Your task to perform on an android device: Go to location settings Image 0: 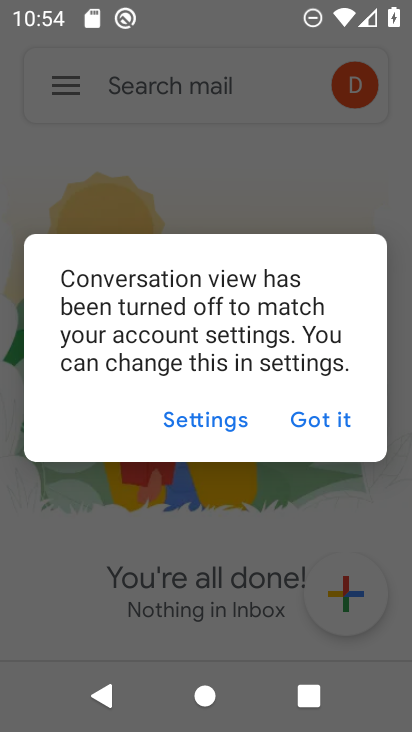
Step 0: press home button
Your task to perform on an android device: Go to location settings Image 1: 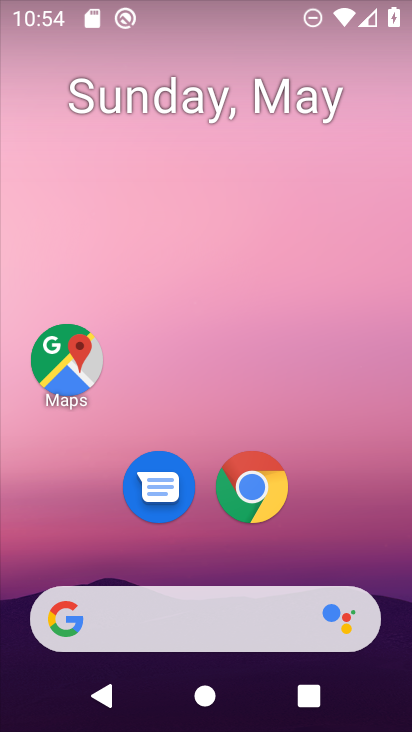
Step 1: drag from (377, 472) to (333, 168)
Your task to perform on an android device: Go to location settings Image 2: 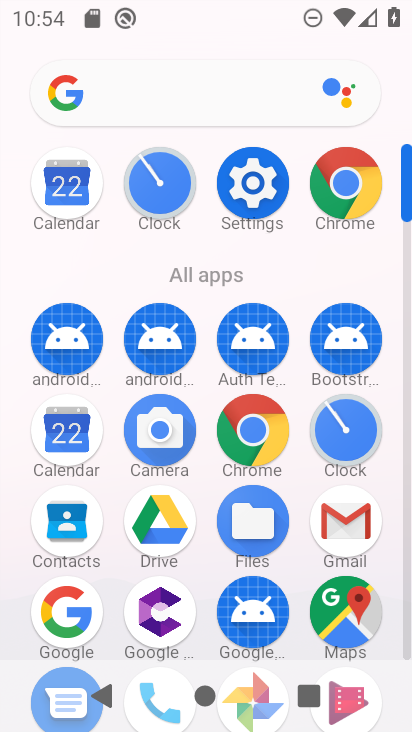
Step 2: click (243, 192)
Your task to perform on an android device: Go to location settings Image 3: 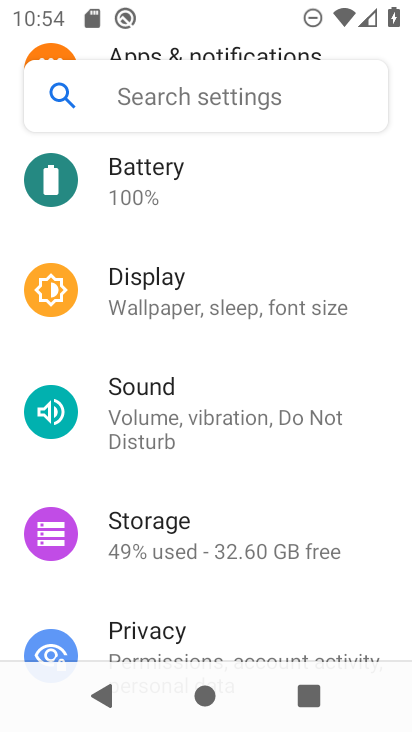
Step 3: drag from (236, 591) to (223, 209)
Your task to perform on an android device: Go to location settings Image 4: 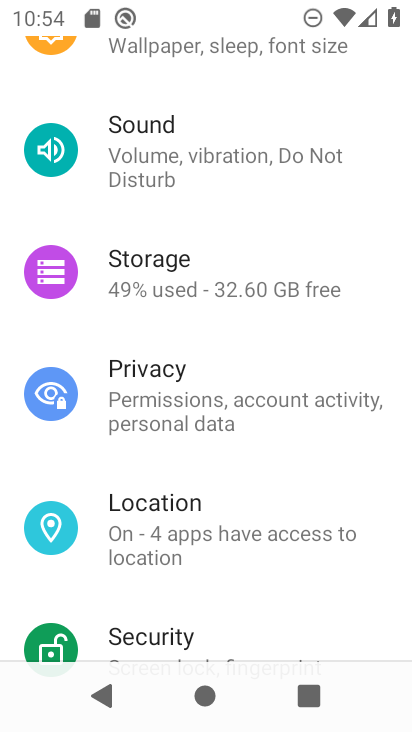
Step 4: click (211, 540)
Your task to perform on an android device: Go to location settings Image 5: 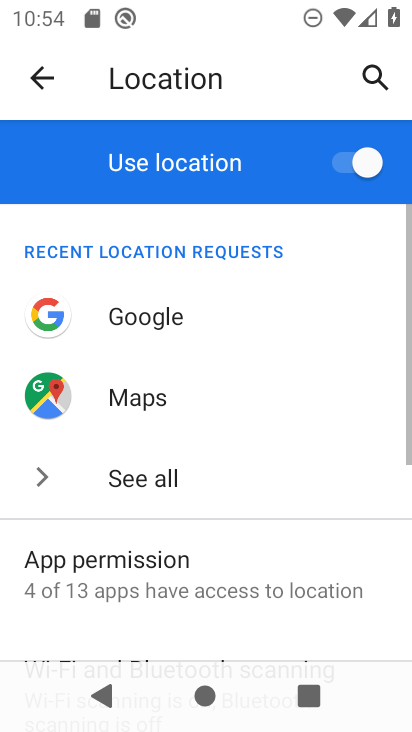
Step 5: task complete